Your task to perform on an android device: check battery use Image 0: 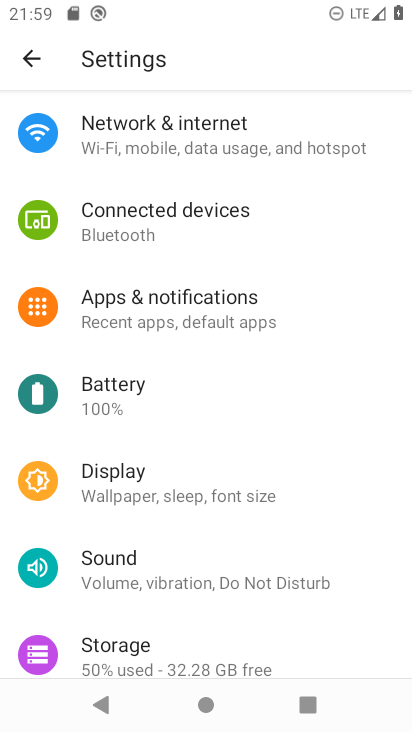
Step 0: click (121, 380)
Your task to perform on an android device: check battery use Image 1: 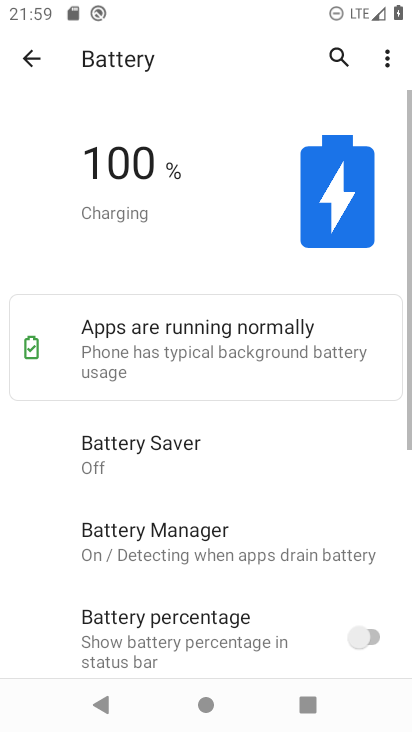
Step 1: click (379, 57)
Your task to perform on an android device: check battery use Image 2: 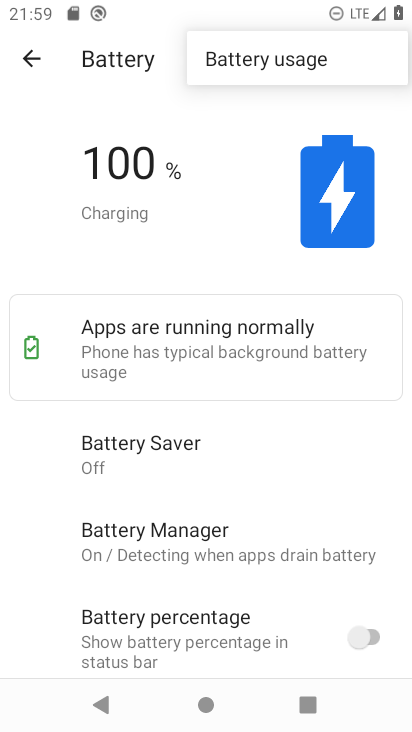
Step 2: click (320, 64)
Your task to perform on an android device: check battery use Image 3: 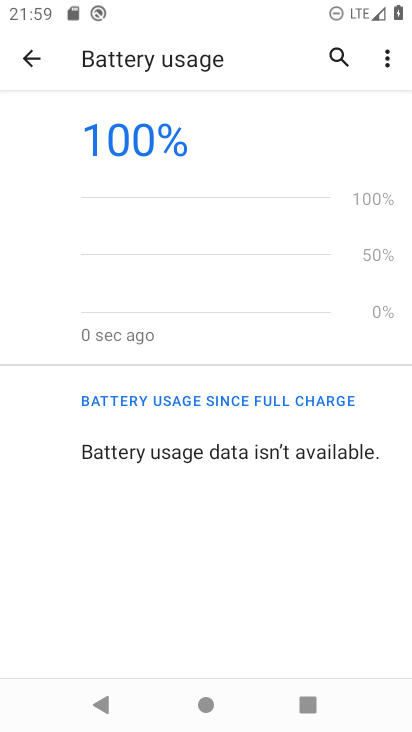
Step 3: task complete